Your task to perform on an android device: toggle airplane mode Image 0: 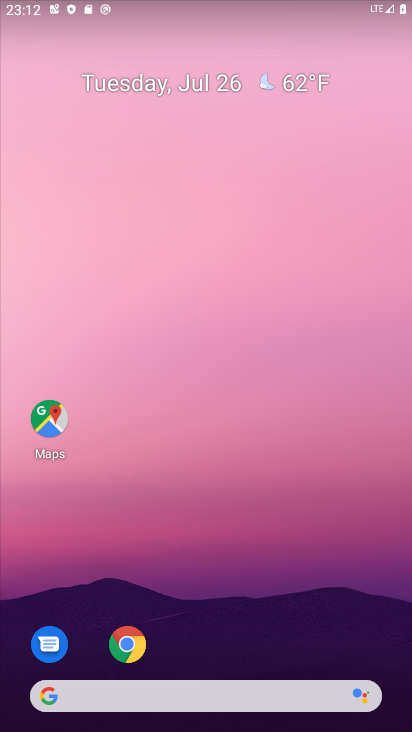
Step 0: drag from (227, 653) to (197, 44)
Your task to perform on an android device: toggle airplane mode Image 1: 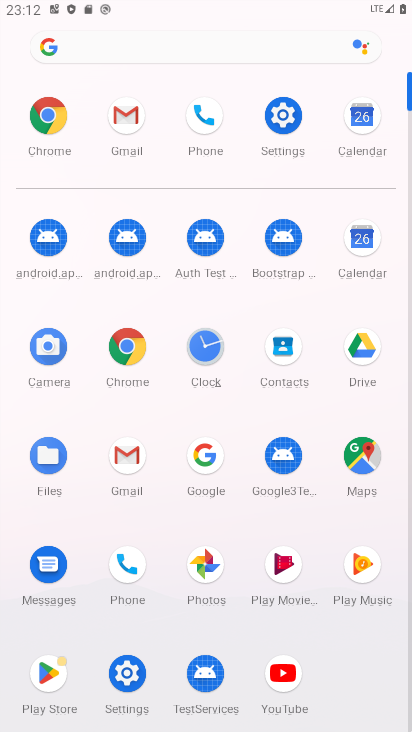
Step 1: click (297, 119)
Your task to perform on an android device: toggle airplane mode Image 2: 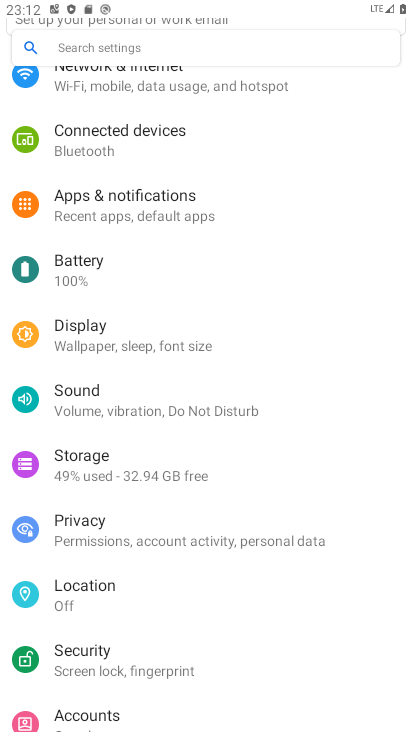
Step 2: click (193, 85)
Your task to perform on an android device: toggle airplane mode Image 3: 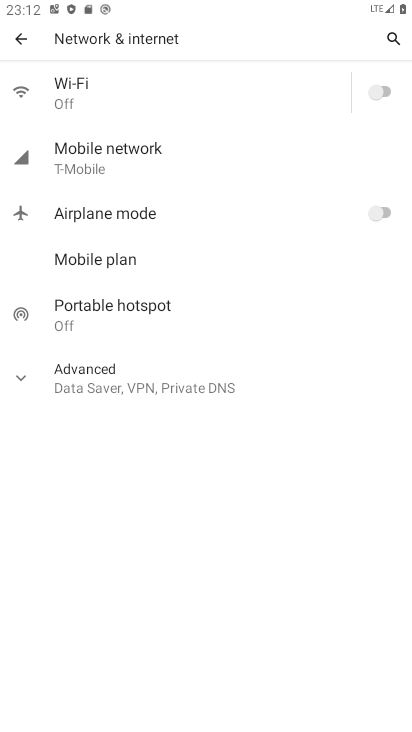
Step 3: click (381, 209)
Your task to perform on an android device: toggle airplane mode Image 4: 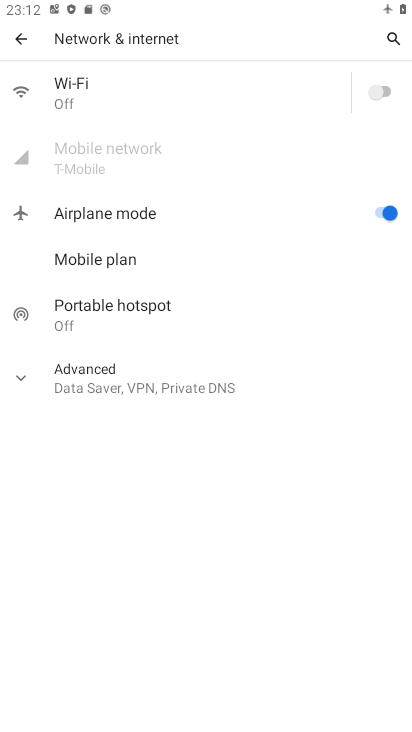
Step 4: task complete